Your task to perform on an android device: Go to ESPN.com Image 0: 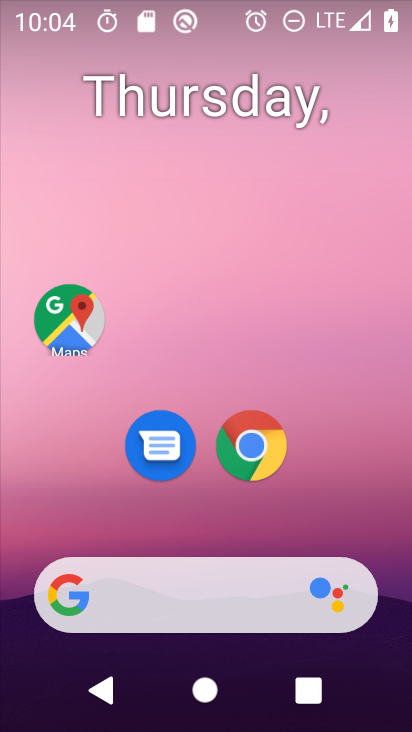
Step 0: drag from (202, 487) to (255, 136)
Your task to perform on an android device: Go to ESPN.com Image 1: 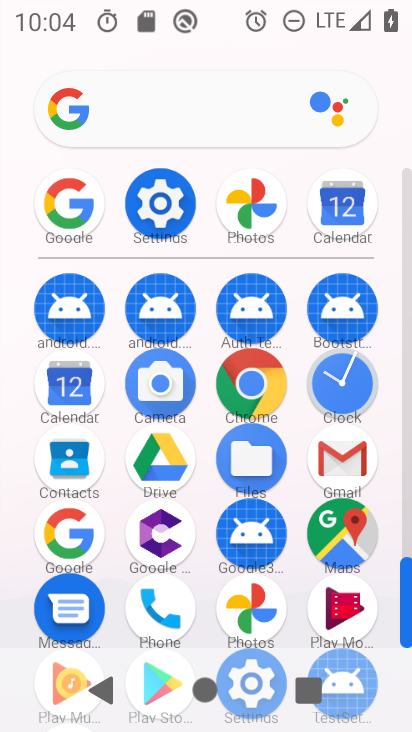
Step 1: drag from (205, 615) to (169, 190)
Your task to perform on an android device: Go to ESPN.com Image 2: 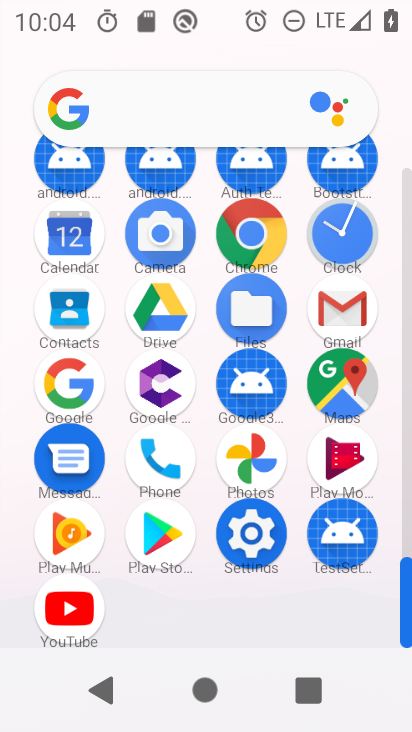
Step 2: drag from (223, 562) to (230, 273)
Your task to perform on an android device: Go to ESPN.com Image 3: 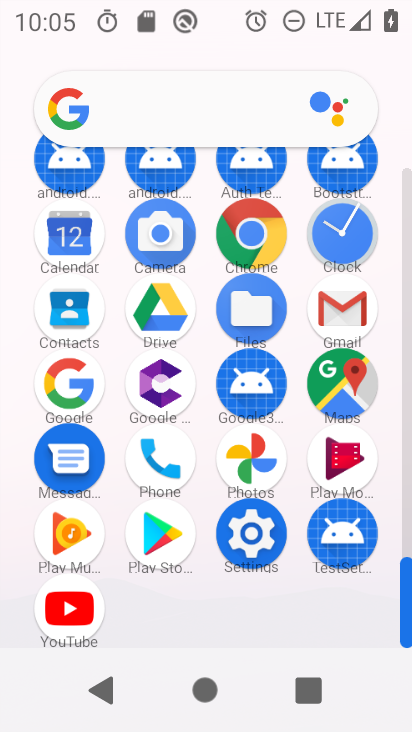
Step 3: click (261, 213)
Your task to perform on an android device: Go to ESPN.com Image 4: 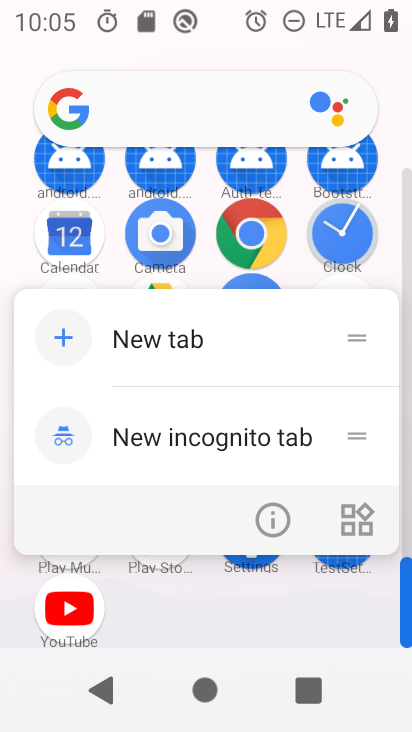
Step 4: click (256, 531)
Your task to perform on an android device: Go to ESPN.com Image 5: 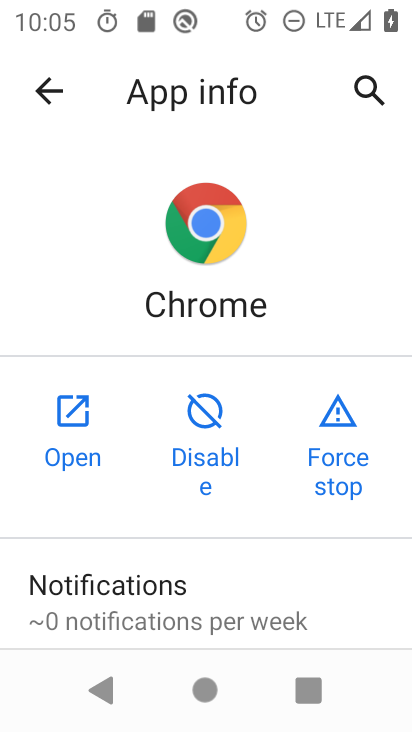
Step 5: click (77, 426)
Your task to perform on an android device: Go to ESPN.com Image 6: 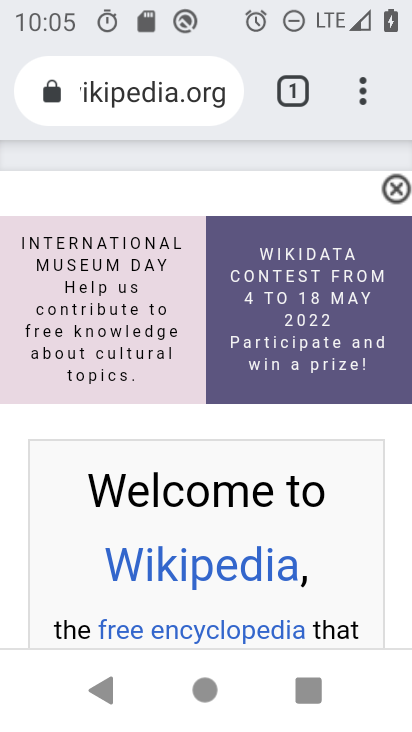
Step 6: click (299, 98)
Your task to perform on an android device: Go to ESPN.com Image 7: 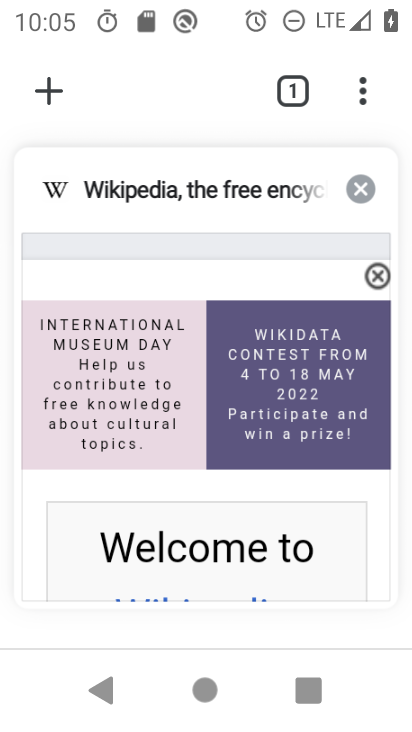
Step 7: click (46, 79)
Your task to perform on an android device: Go to ESPN.com Image 8: 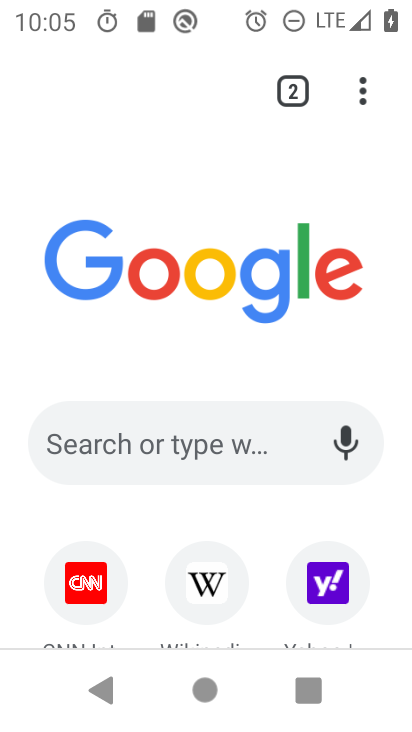
Step 8: click (214, 453)
Your task to perform on an android device: Go to ESPN.com Image 9: 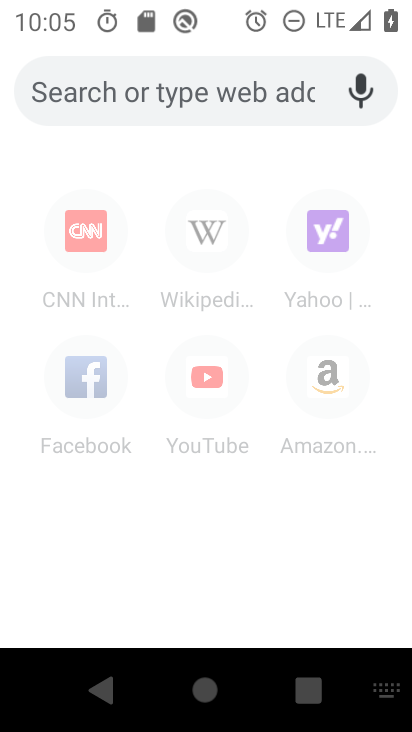
Step 9: type "espn.com"
Your task to perform on an android device: Go to ESPN.com Image 10: 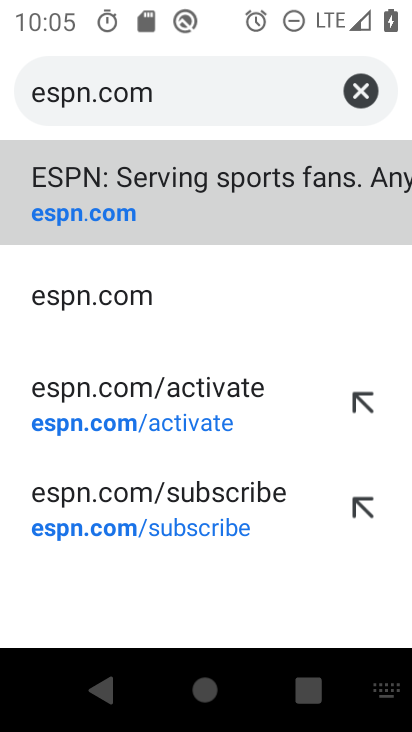
Step 10: click (79, 198)
Your task to perform on an android device: Go to ESPN.com Image 11: 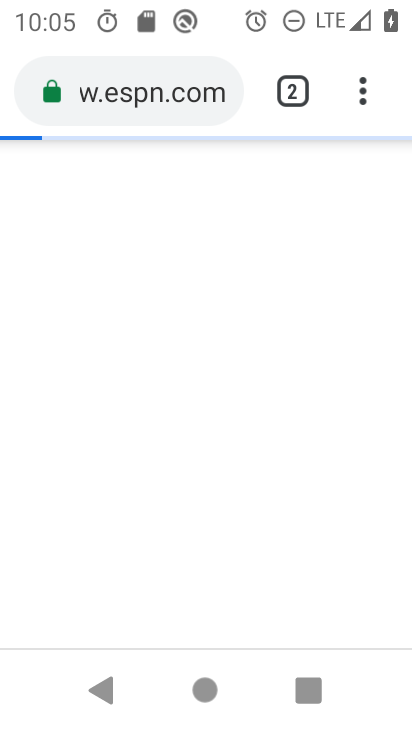
Step 11: task complete